Your task to perform on an android device: Open display settings Image 0: 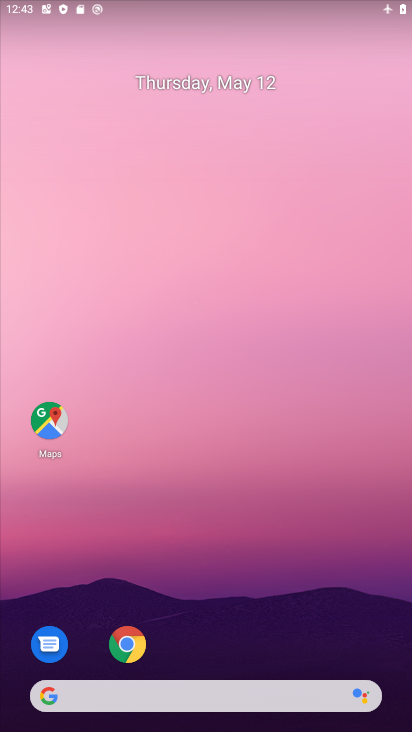
Step 0: drag from (249, 586) to (188, 9)
Your task to perform on an android device: Open display settings Image 1: 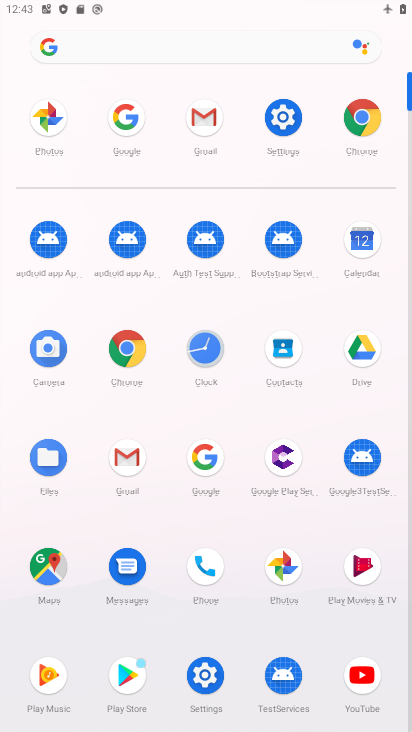
Step 1: click (283, 135)
Your task to perform on an android device: Open display settings Image 2: 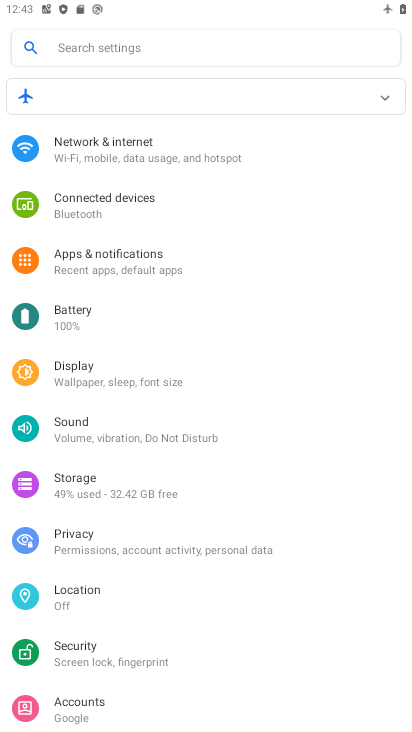
Step 2: click (165, 373)
Your task to perform on an android device: Open display settings Image 3: 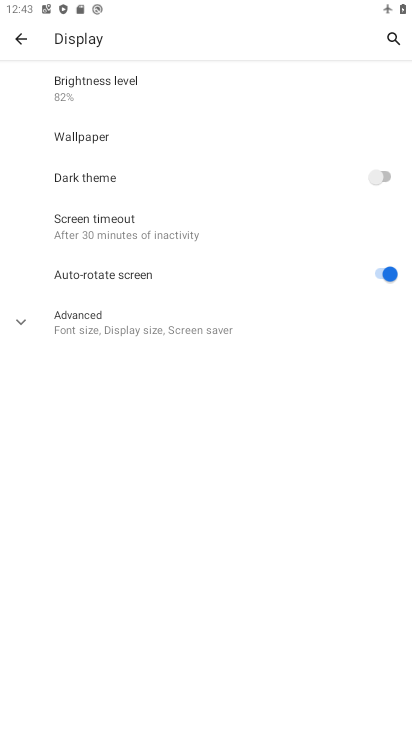
Step 3: task complete